Your task to perform on an android device: Go to Google maps Image 0: 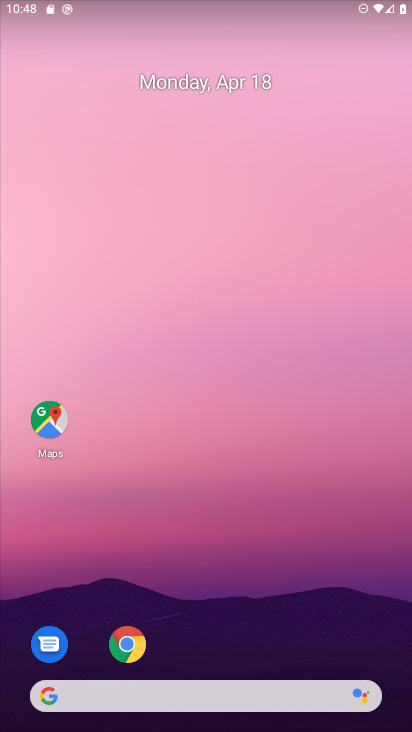
Step 0: click (45, 426)
Your task to perform on an android device: Go to Google maps Image 1: 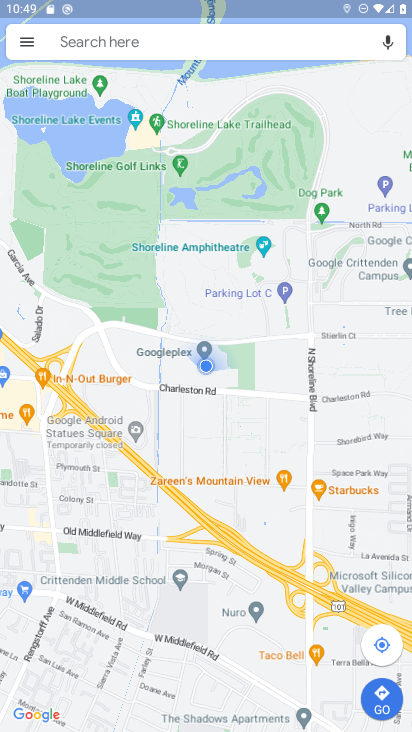
Step 1: task complete